Your task to perform on an android device: Go to Android settings Image 0: 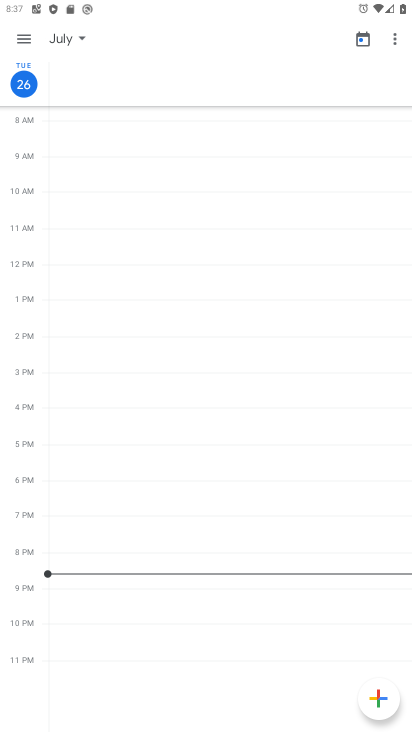
Step 0: press home button
Your task to perform on an android device: Go to Android settings Image 1: 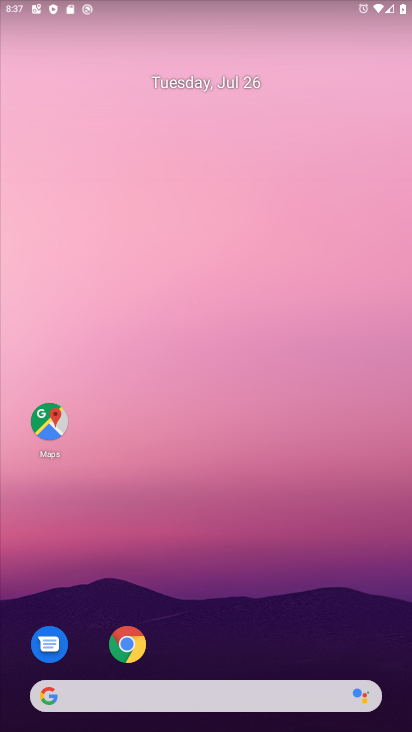
Step 1: drag from (191, 633) to (228, 236)
Your task to perform on an android device: Go to Android settings Image 2: 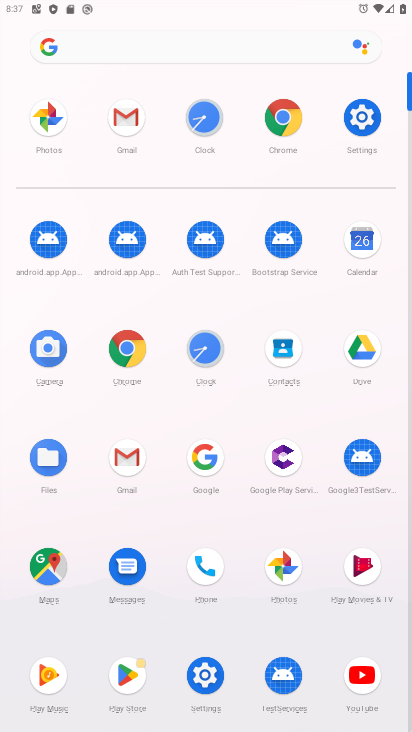
Step 2: click (358, 108)
Your task to perform on an android device: Go to Android settings Image 3: 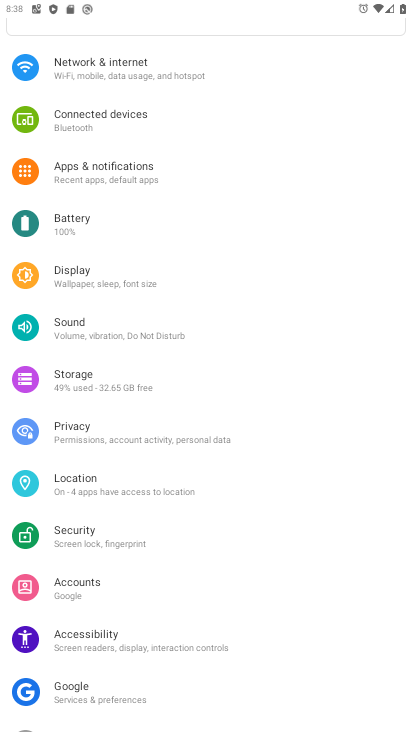
Step 3: task complete